Your task to perform on an android device: Go to wifi settings Image 0: 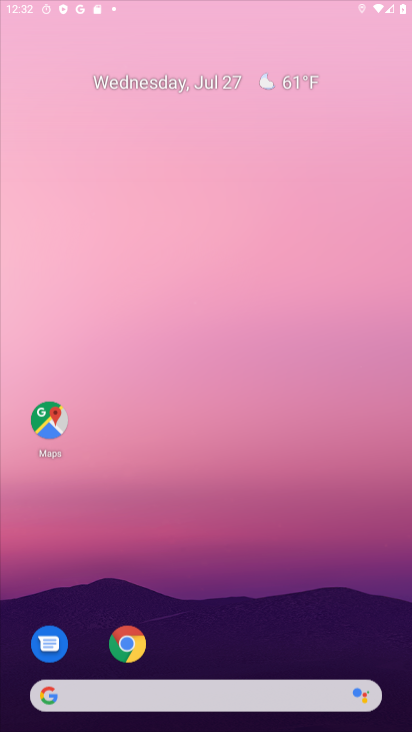
Step 0: click (266, 346)
Your task to perform on an android device: Go to wifi settings Image 1: 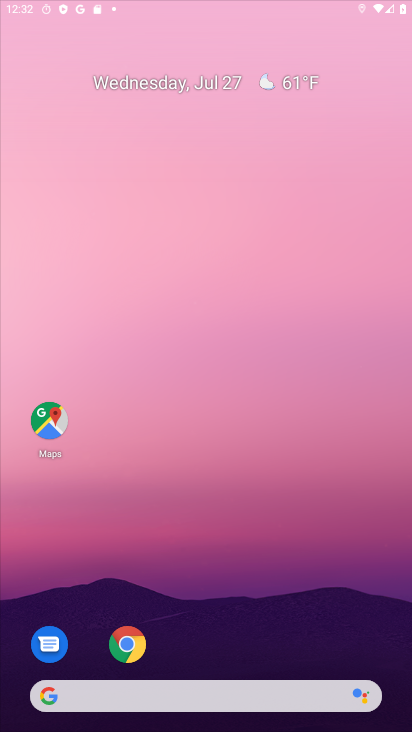
Step 1: press home button
Your task to perform on an android device: Go to wifi settings Image 2: 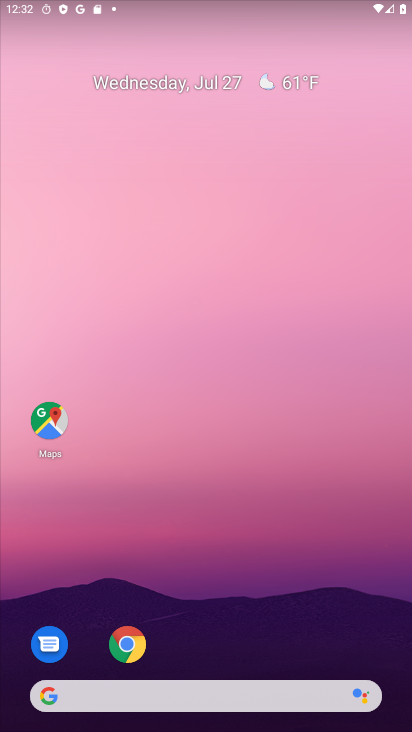
Step 2: drag from (34, 625) to (114, 133)
Your task to perform on an android device: Go to wifi settings Image 3: 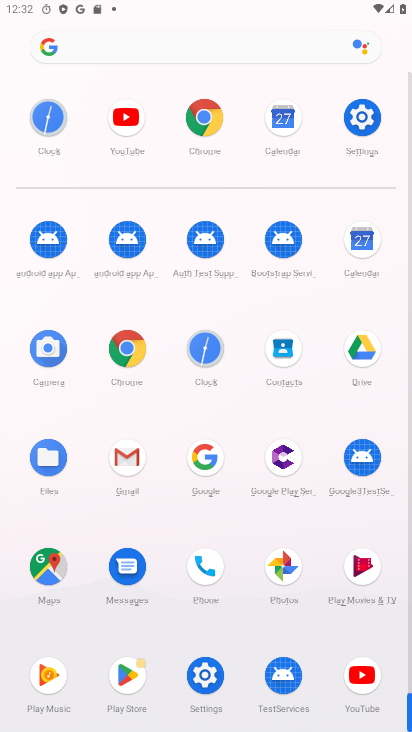
Step 3: click (352, 120)
Your task to perform on an android device: Go to wifi settings Image 4: 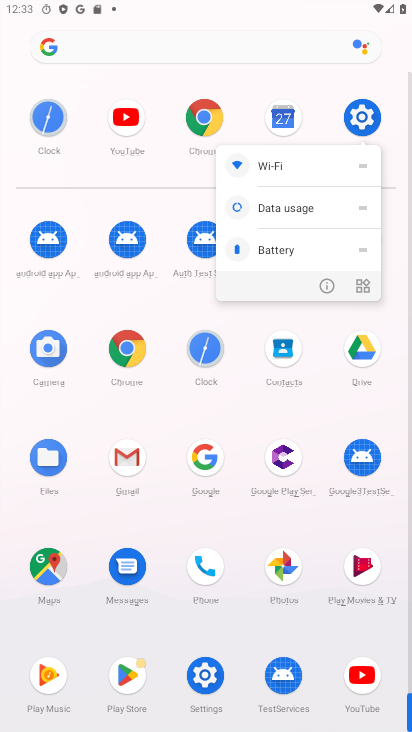
Step 4: click (323, 279)
Your task to perform on an android device: Go to wifi settings Image 5: 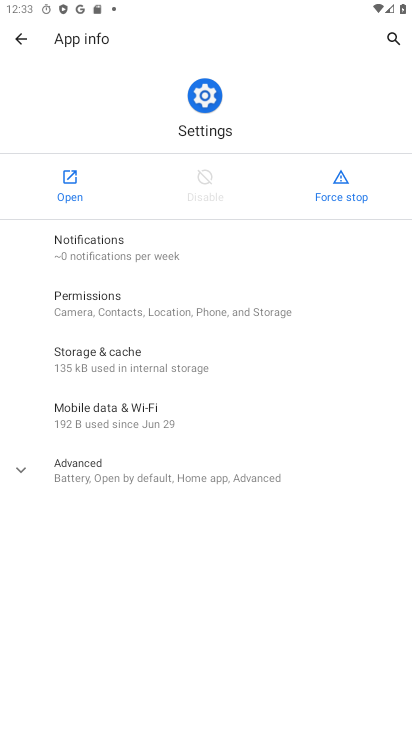
Step 5: click (72, 163)
Your task to perform on an android device: Go to wifi settings Image 6: 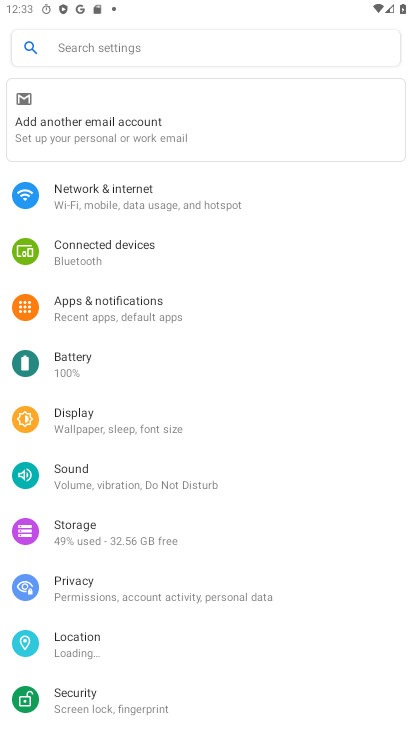
Step 6: click (120, 189)
Your task to perform on an android device: Go to wifi settings Image 7: 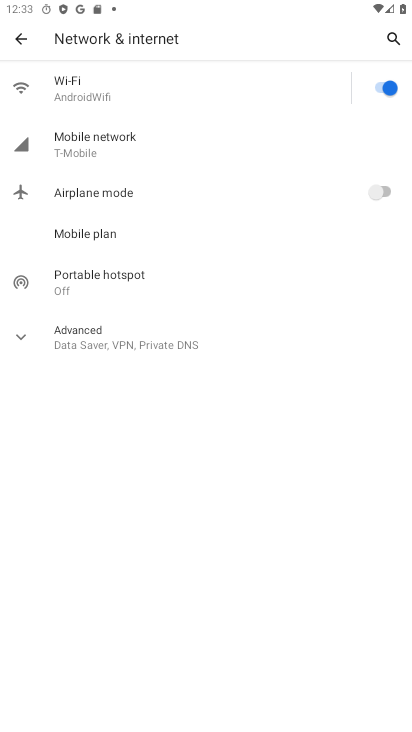
Step 7: click (165, 94)
Your task to perform on an android device: Go to wifi settings Image 8: 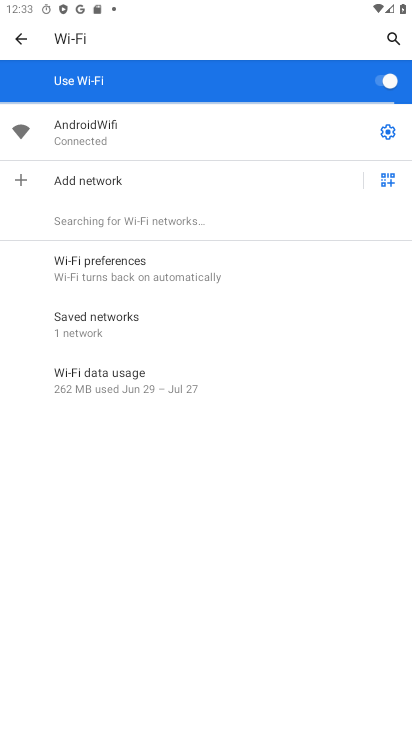
Step 8: drag from (165, 477) to (194, 229)
Your task to perform on an android device: Go to wifi settings Image 9: 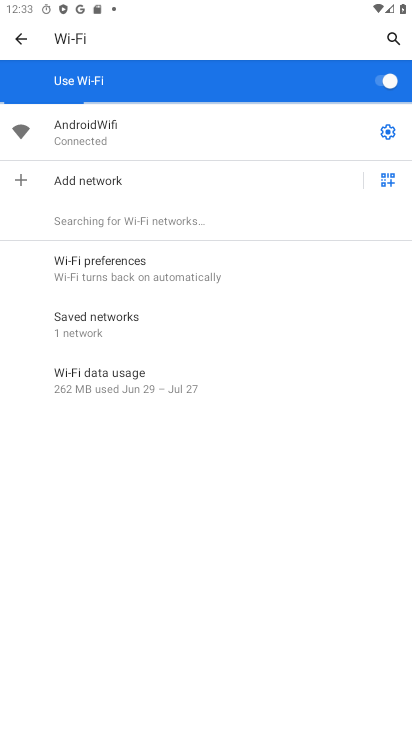
Step 9: click (388, 130)
Your task to perform on an android device: Go to wifi settings Image 10: 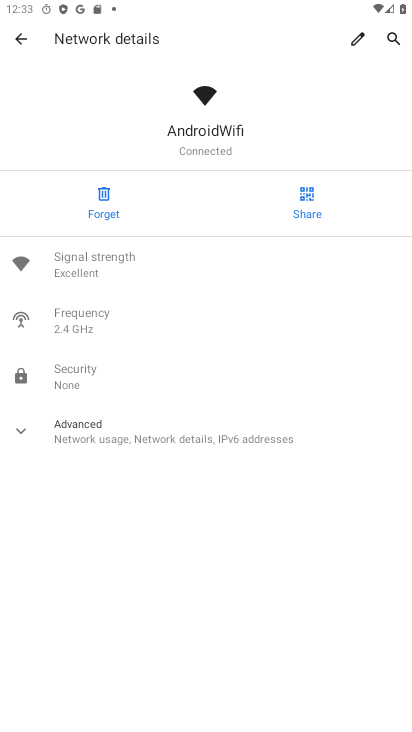
Step 10: task complete